Your task to perform on an android device: change text size in settings app Image 0: 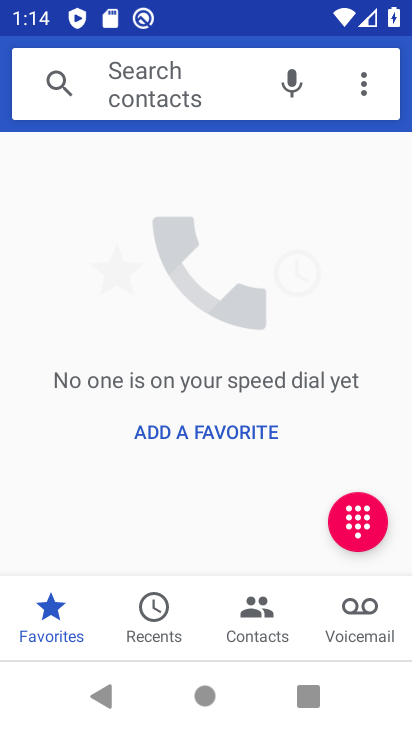
Step 0: press back button
Your task to perform on an android device: change text size in settings app Image 1: 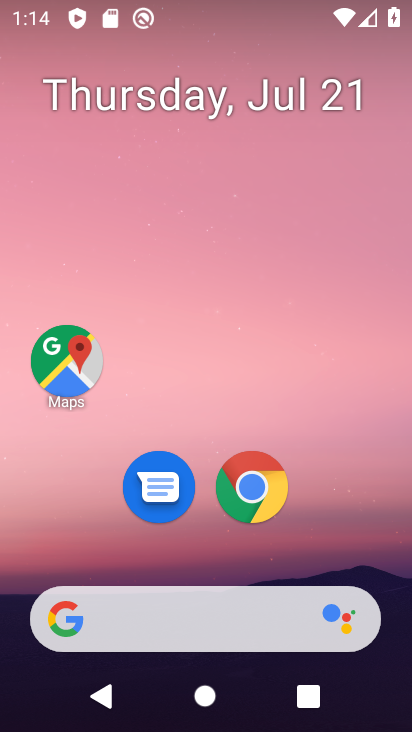
Step 1: drag from (162, 575) to (333, 2)
Your task to perform on an android device: change text size in settings app Image 2: 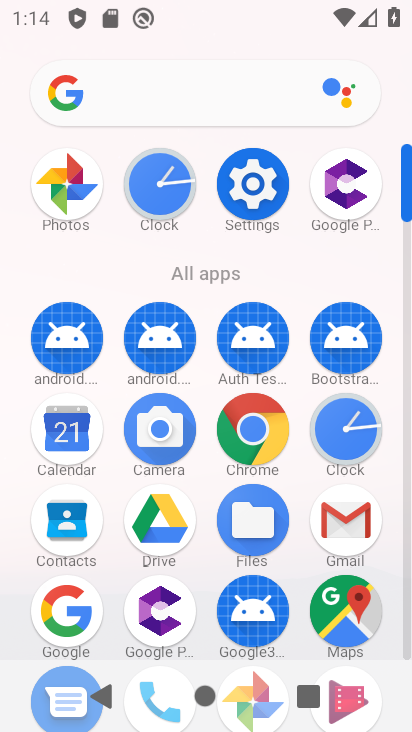
Step 2: click (257, 174)
Your task to perform on an android device: change text size in settings app Image 3: 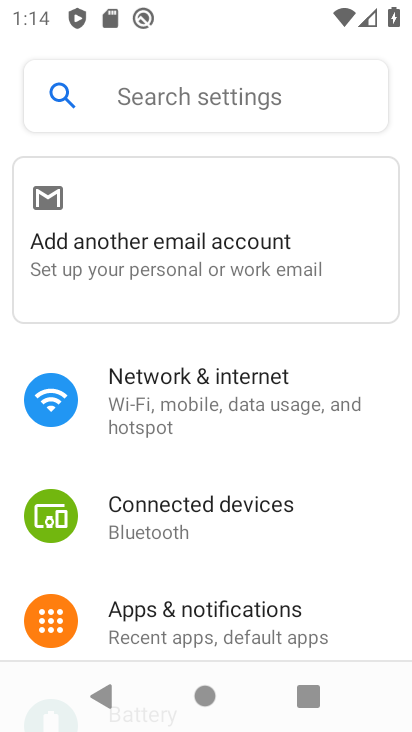
Step 3: click (203, 79)
Your task to perform on an android device: change text size in settings app Image 4: 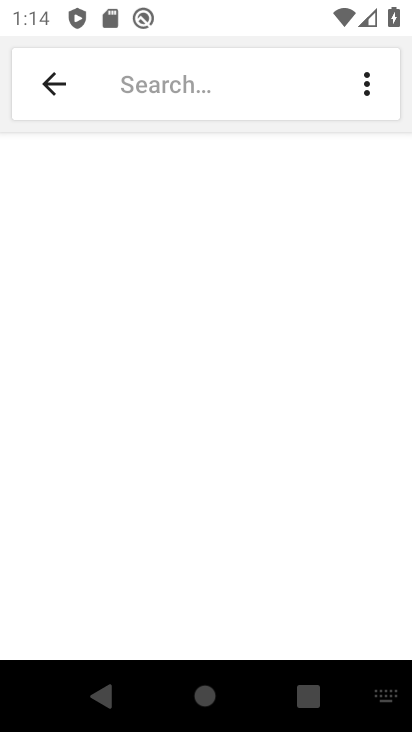
Step 4: type "text size"
Your task to perform on an android device: change text size in settings app Image 5: 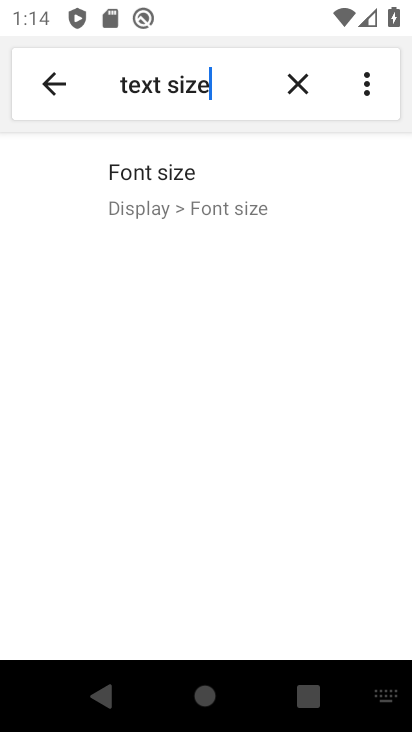
Step 5: click (152, 202)
Your task to perform on an android device: change text size in settings app Image 6: 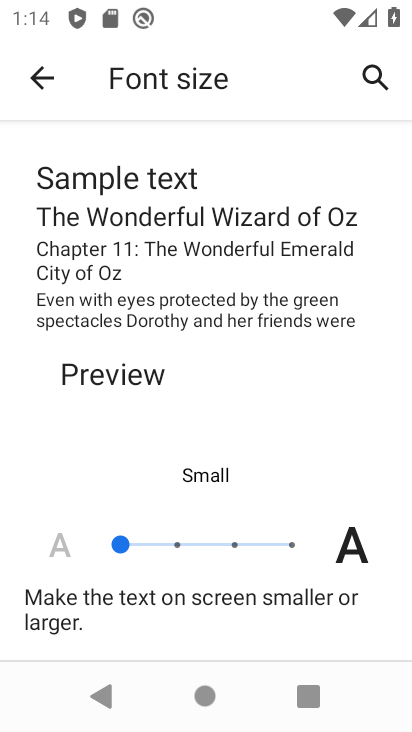
Step 6: task complete